Your task to perform on an android device: turn on data saver in the chrome app Image 0: 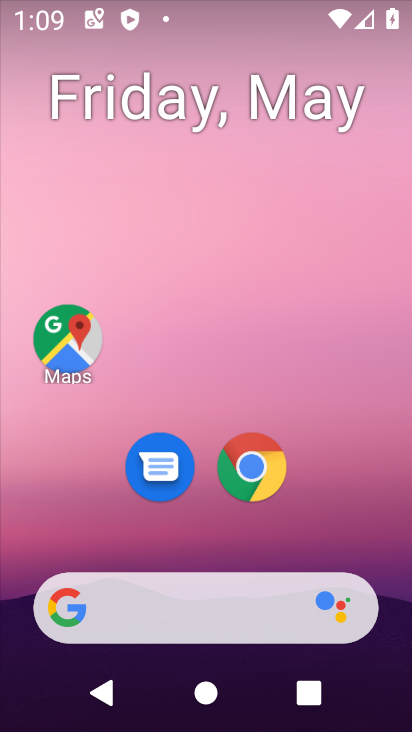
Step 0: drag from (374, 482) to (358, 134)
Your task to perform on an android device: turn on data saver in the chrome app Image 1: 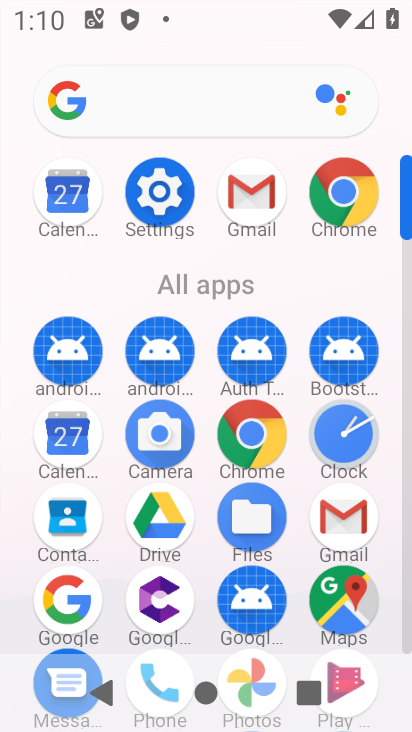
Step 1: click (332, 208)
Your task to perform on an android device: turn on data saver in the chrome app Image 2: 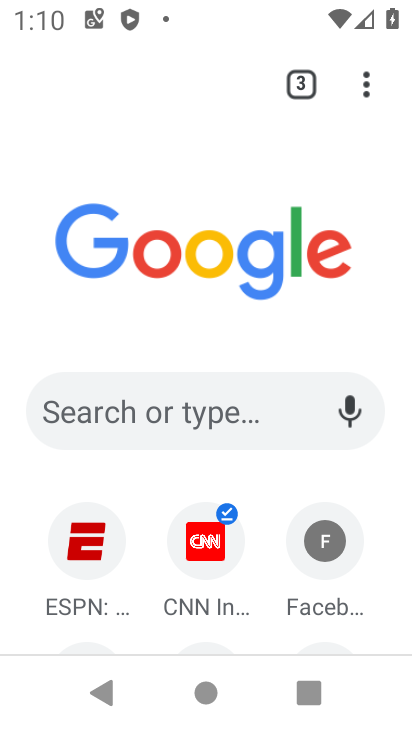
Step 2: drag from (354, 77) to (145, 363)
Your task to perform on an android device: turn on data saver in the chrome app Image 3: 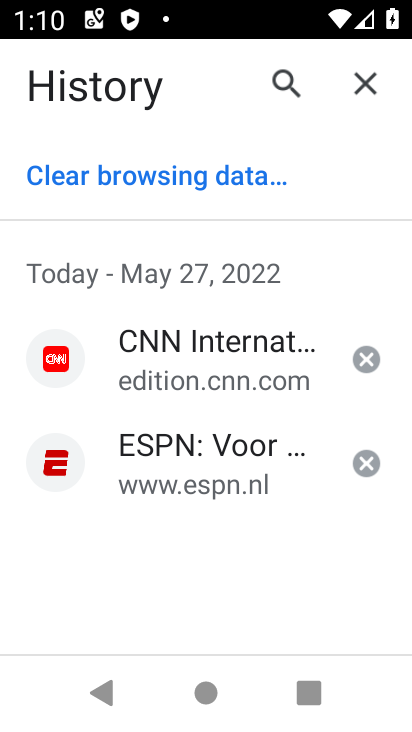
Step 3: click (360, 98)
Your task to perform on an android device: turn on data saver in the chrome app Image 4: 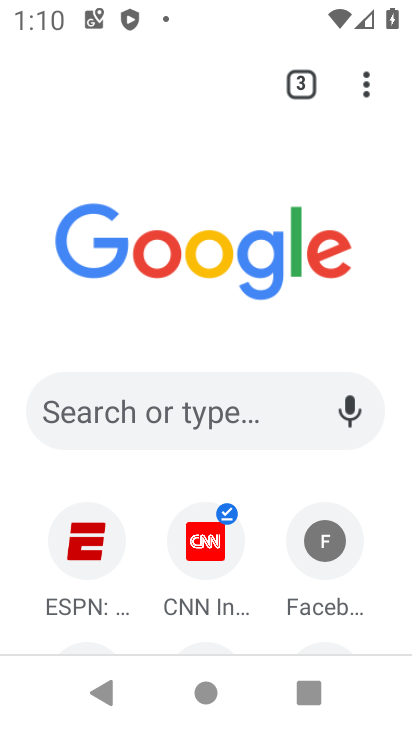
Step 4: drag from (370, 78) to (147, 521)
Your task to perform on an android device: turn on data saver in the chrome app Image 5: 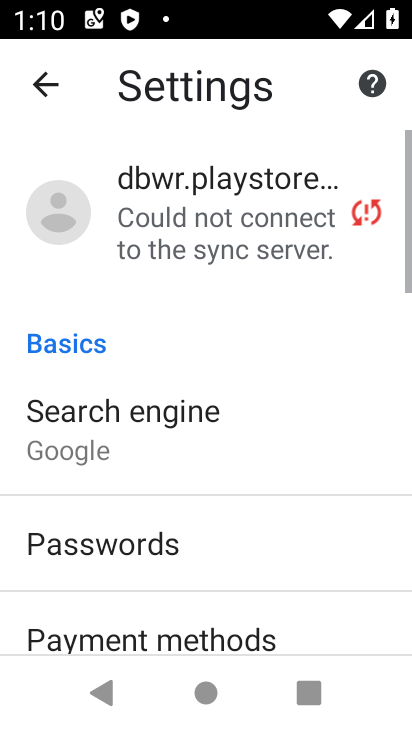
Step 5: drag from (198, 584) to (263, 132)
Your task to perform on an android device: turn on data saver in the chrome app Image 6: 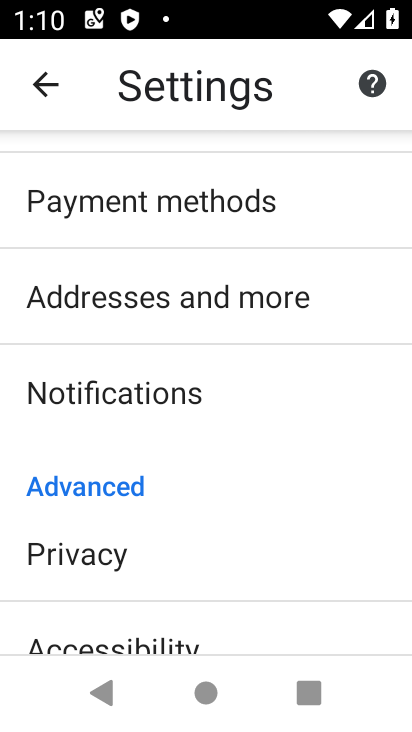
Step 6: drag from (156, 563) to (177, 262)
Your task to perform on an android device: turn on data saver in the chrome app Image 7: 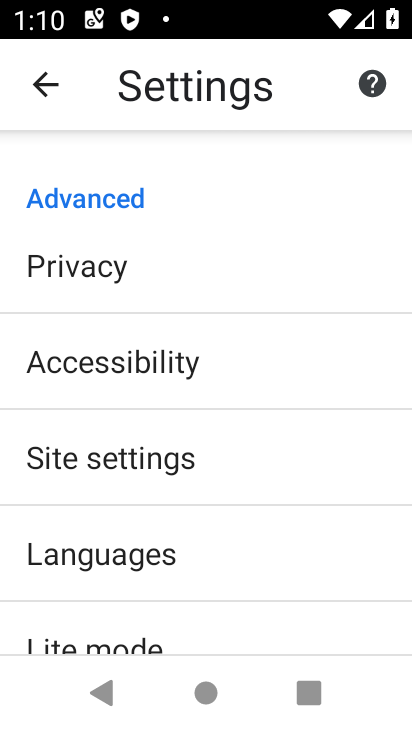
Step 7: drag from (179, 611) to (228, 456)
Your task to perform on an android device: turn on data saver in the chrome app Image 8: 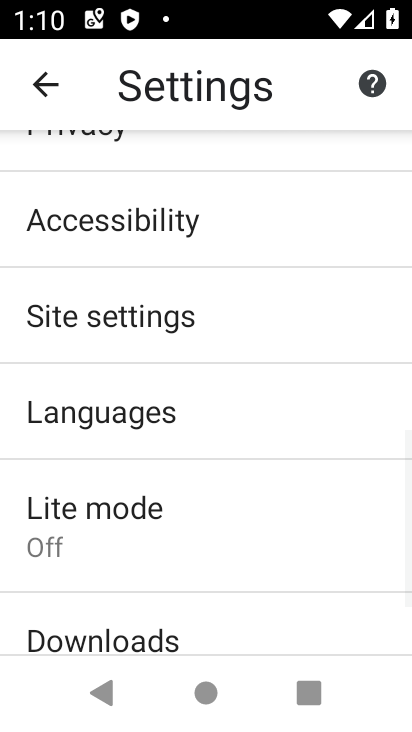
Step 8: click (173, 540)
Your task to perform on an android device: turn on data saver in the chrome app Image 9: 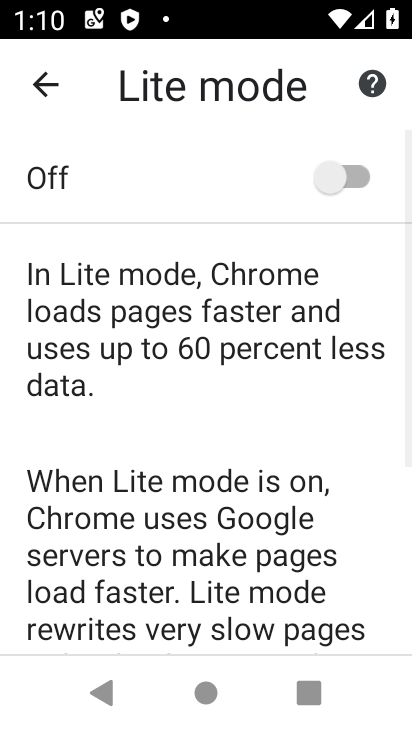
Step 9: click (250, 165)
Your task to perform on an android device: turn on data saver in the chrome app Image 10: 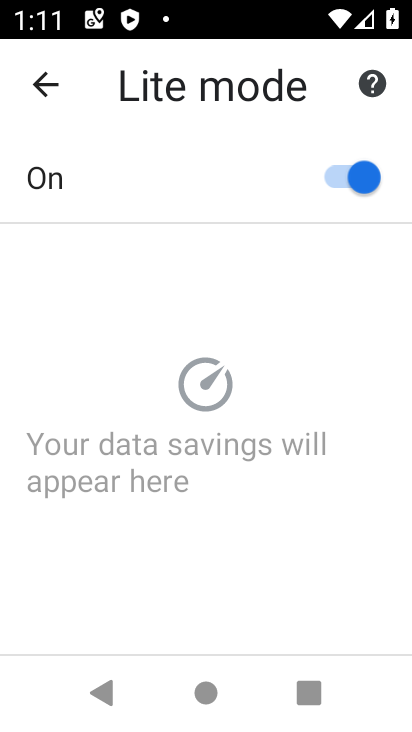
Step 10: task complete